Your task to perform on an android device: Open settings on Google Maps Image 0: 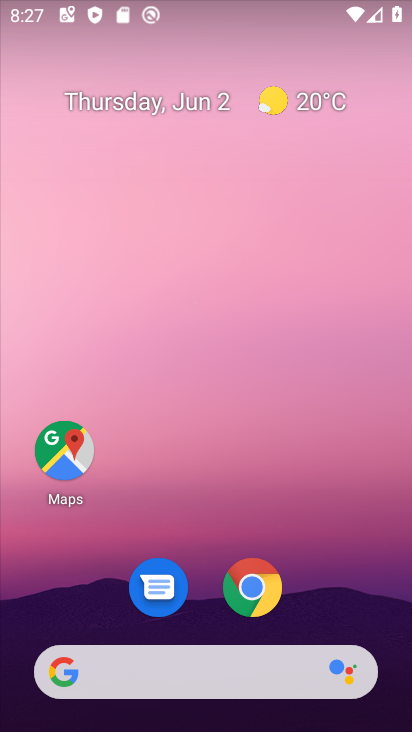
Step 0: click (65, 440)
Your task to perform on an android device: Open settings on Google Maps Image 1: 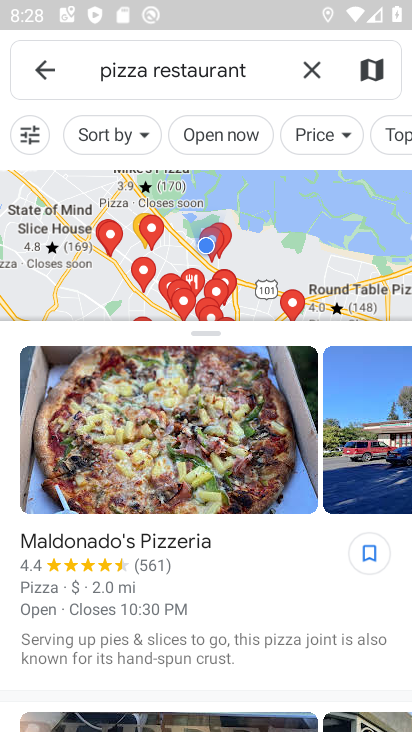
Step 1: click (49, 65)
Your task to perform on an android device: Open settings on Google Maps Image 2: 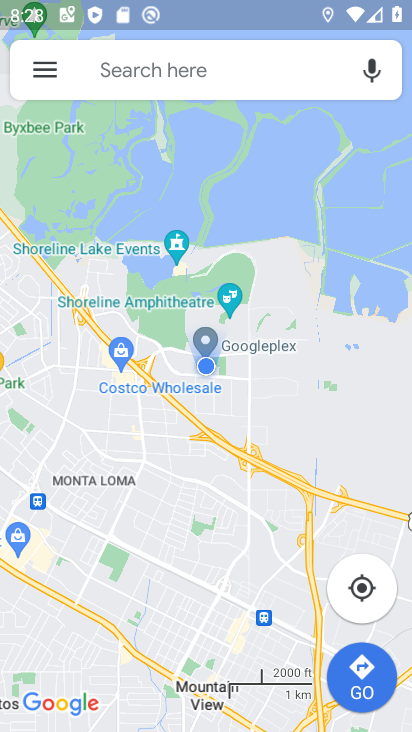
Step 2: click (49, 65)
Your task to perform on an android device: Open settings on Google Maps Image 3: 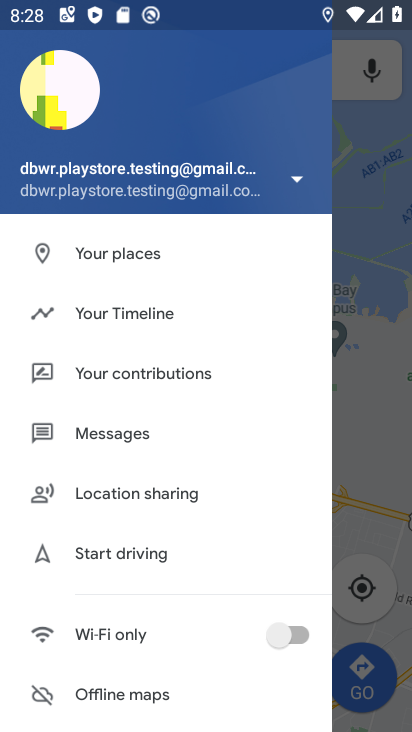
Step 3: drag from (119, 639) to (173, 253)
Your task to perform on an android device: Open settings on Google Maps Image 4: 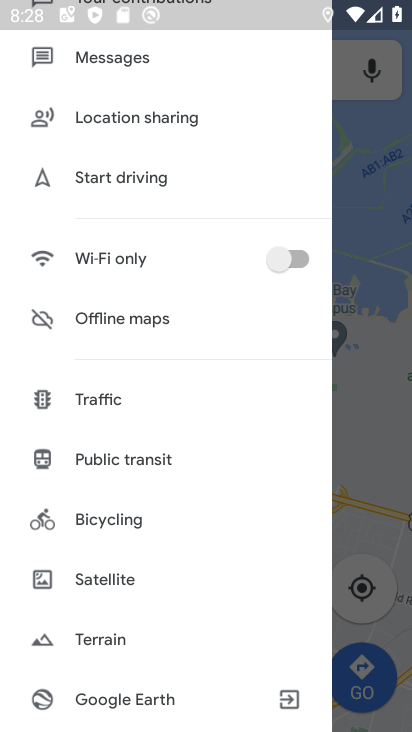
Step 4: drag from (70, 679) to (182, 74)
Your task to perform on an android device: Open settings on Google Maps Image 5: 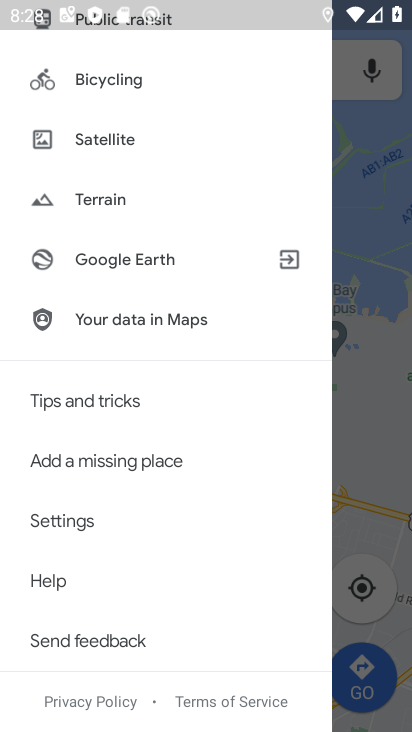
Step 5: click (81, 509)
Your task to perform on an android device: Open settings on Google Maps Image 6: 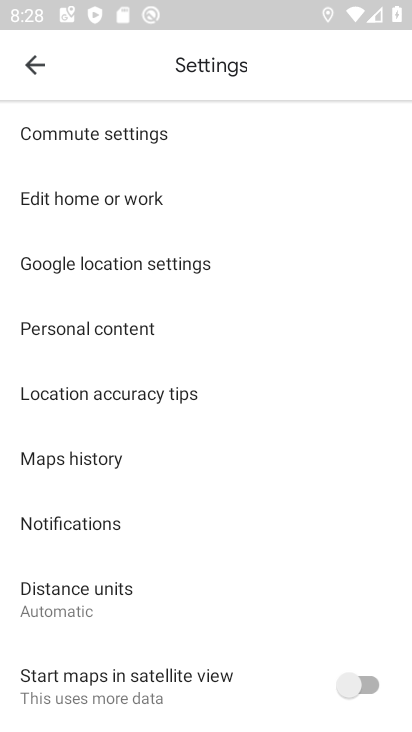
Step 6: task complete